Your task to perform on an android device: Go to privacy settings Image 0: 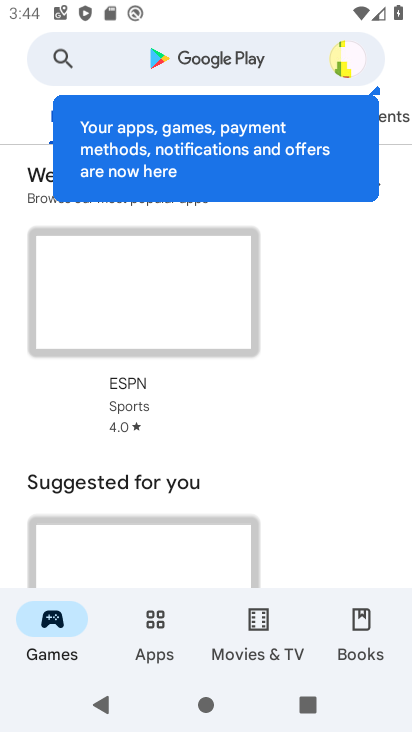
Step 0: press home button
Your task to perform on an android device: Go to privacy settings Image 1: 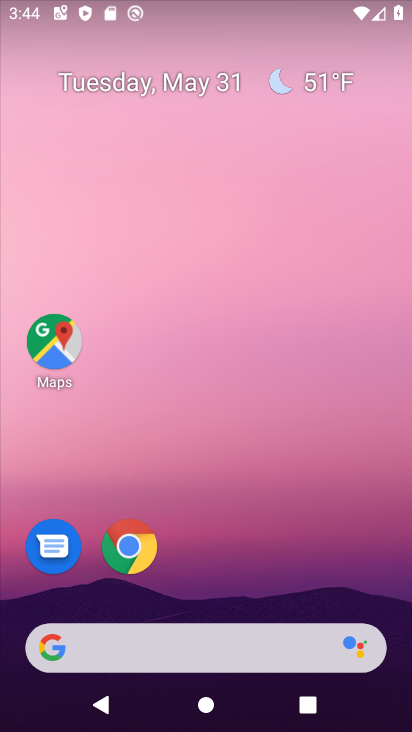
Step 1: drag from (200, 607) to (261, 38)
Your task to perform on an android device: Go to privacy settings Image 2: 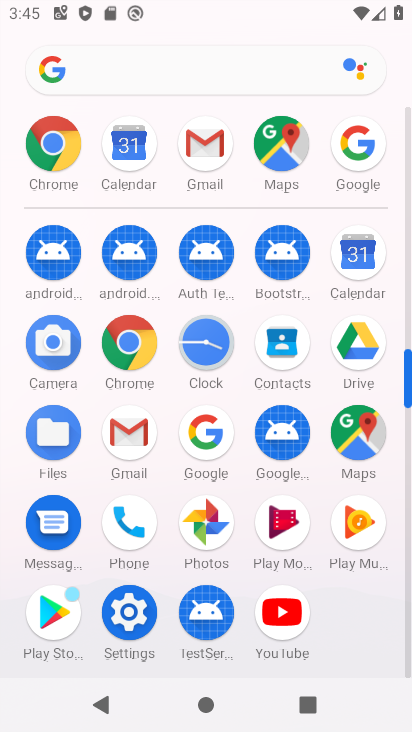
Step 2: click (144, 630)
Your task to perform on an android device: Go to privacy settings Image 3: 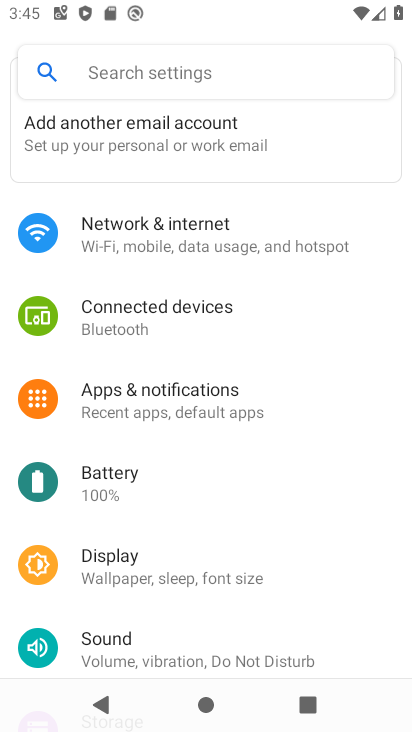
Step 3: drag from (162, 638) to (212, 258)
Your task to perform on an android device: Go to privacy settings Image 4: 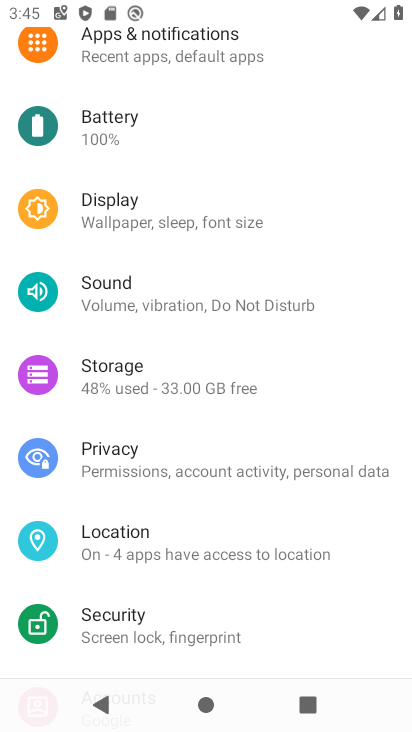
Step 4: drag from (168, 582) to (189, 287)
Your task to perform on an android device: Go to privacy settings Image 5: 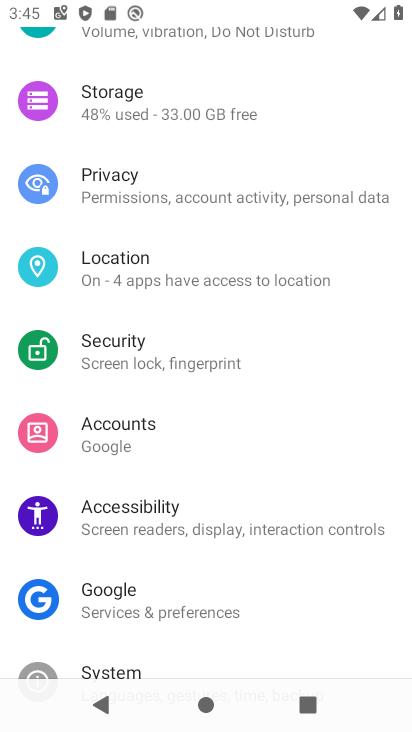
Step 5: click (207, 211)
Your task to perform on an android device: Go to privacy settings Image 6: 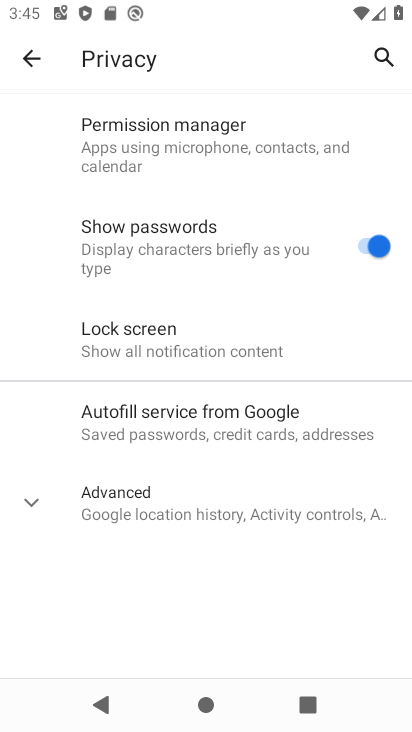
Step 6: task complete